Your task to perform on an android device: clear history in the chrome app Image 0: 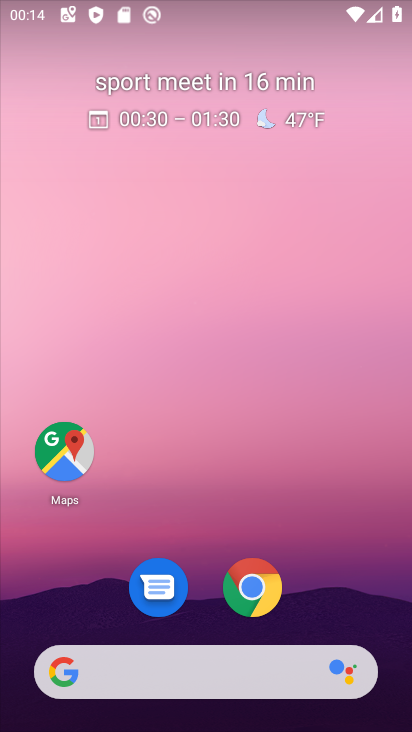
Step 0: click (249, 595)
Your task to perform on an android device: clear history in the chrome app Image 1: 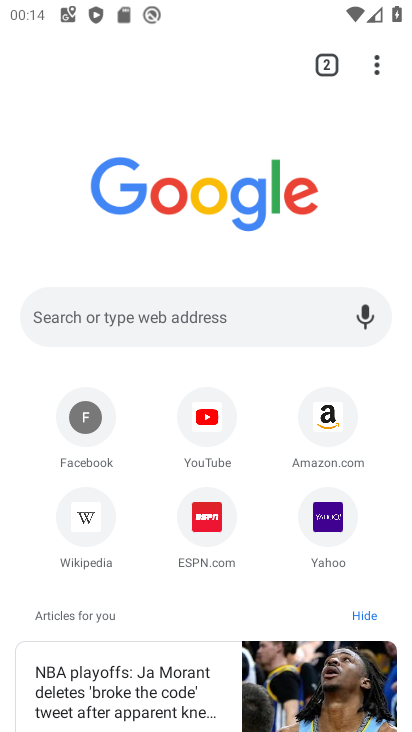
Step 1: click (373, 60)
Your task to perform on an android device: clear history in the chrome app Image 2: 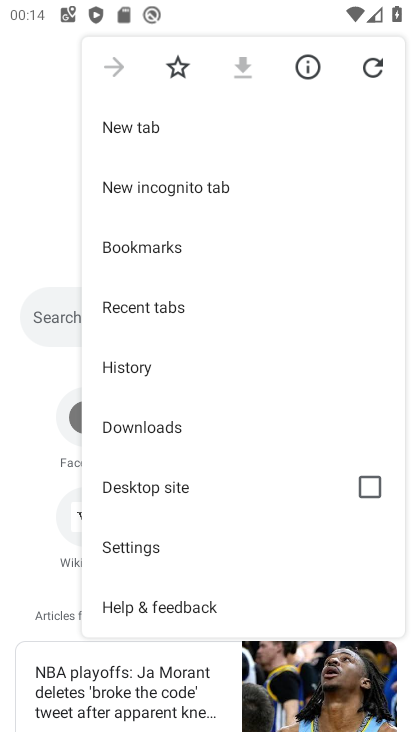
Step 2: drag from (273, 555) to (290, 244)
Your task to perform on an android device: clear history in the chrome app Image 3: 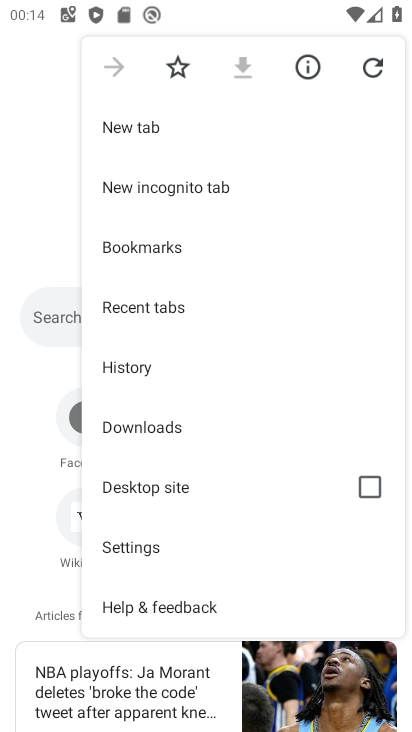
Step 3: drag from (279, 578) to (275, 289)
Your task to perform on an android device: clear history in the chrome app Image 4: 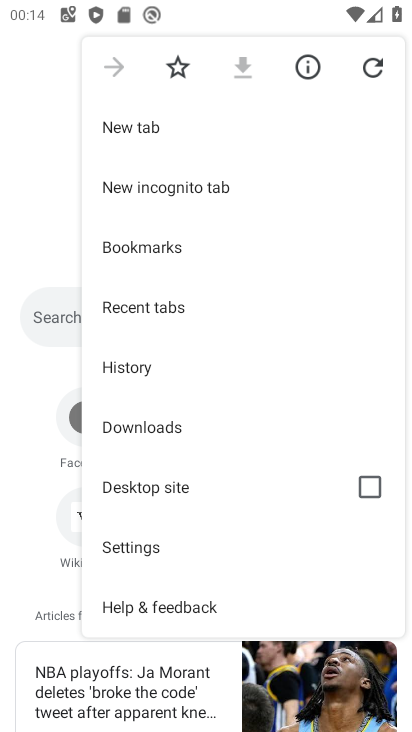
Step 4: click (121, 551)
Your task to perform on an android device: clear history in the chrome app Image 5: 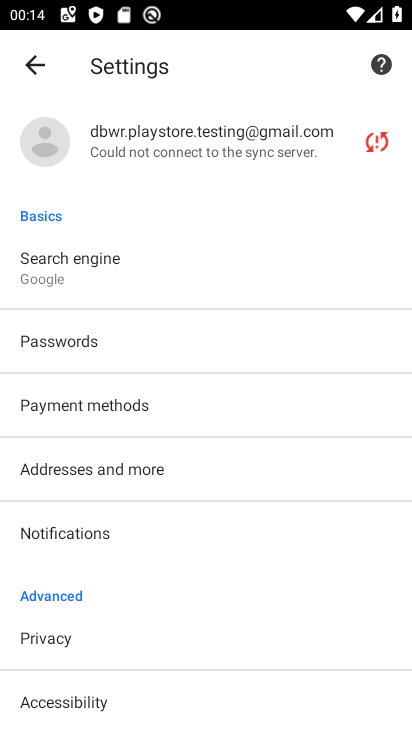
Step 5: click (36, 71)
Your task to perform on an android device: clear history in the chrome app Image 6: 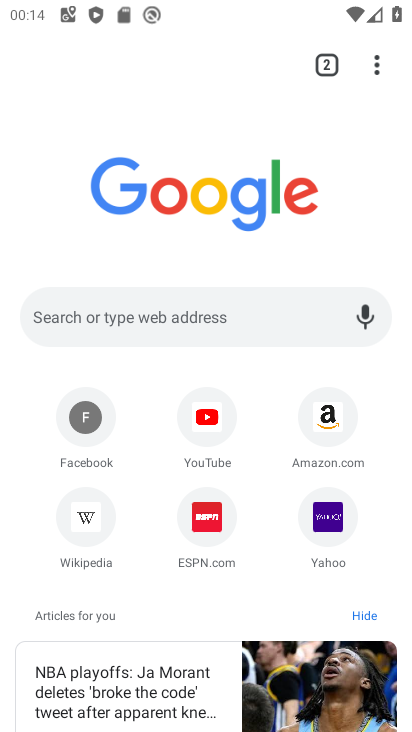
Step 6: click (375, 55)
Your task to perform on an android device: clear history in the chrome app Image 7: 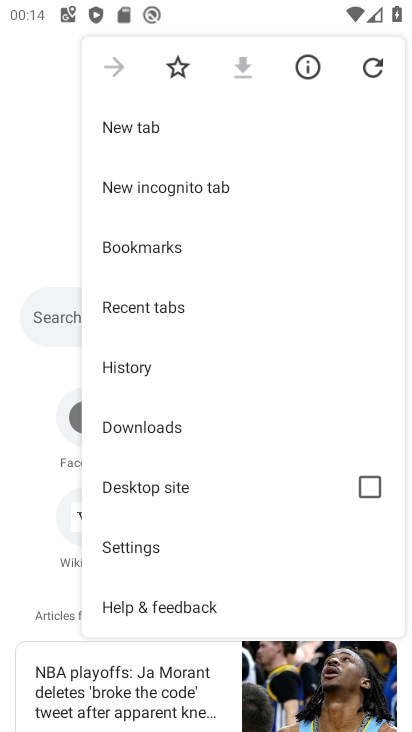
Step 7: click (134, 365)
Your task to perform on an android device: clear history in the chrome app Image 8: 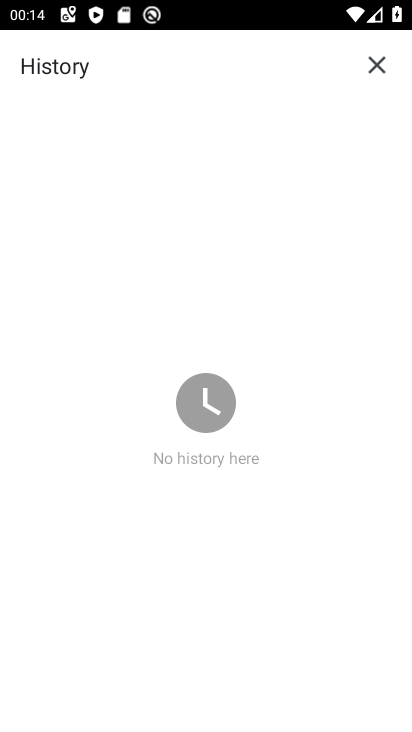
Step 8: task complete